Your task to perform on an android device: Open ESPN.com Image 0: 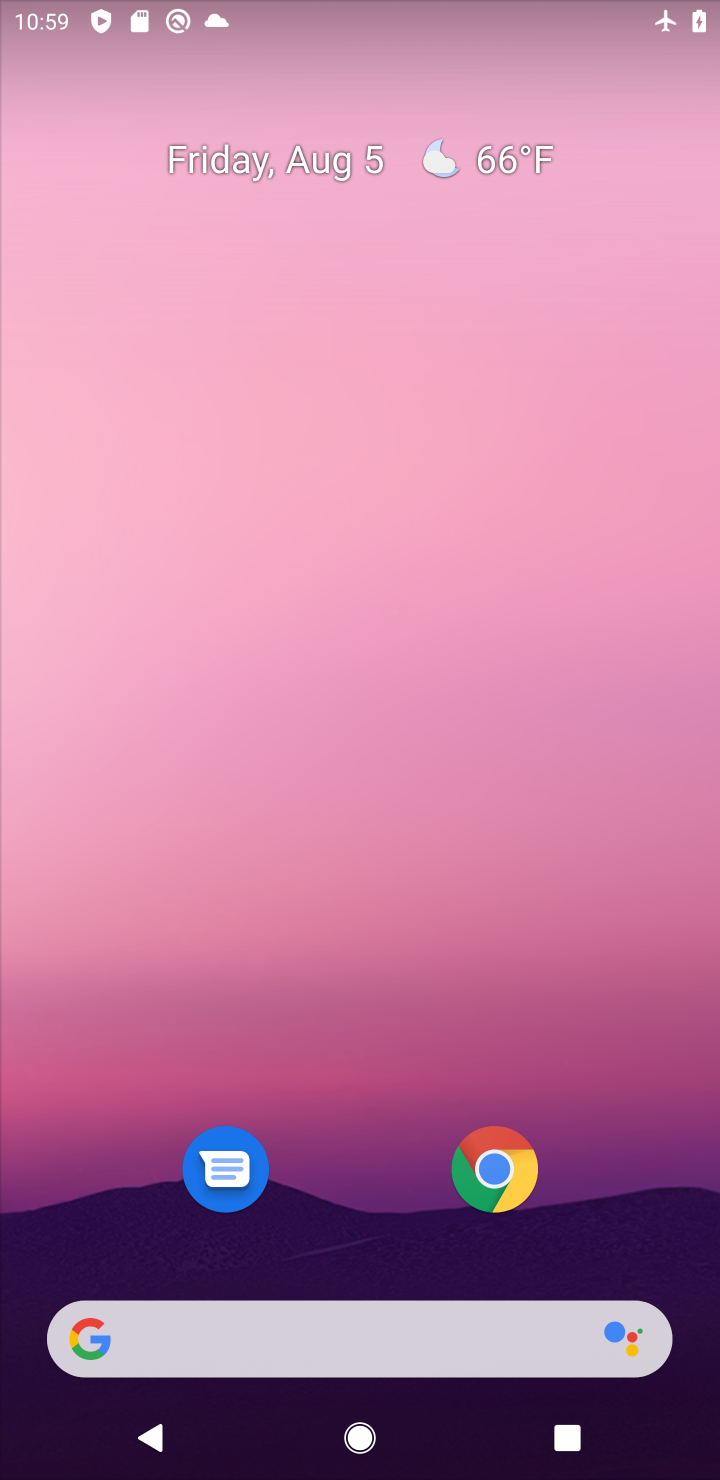
Step 0: click (488, 1177)
Your task to perform on an android device: Open ESPN.com Image 1: 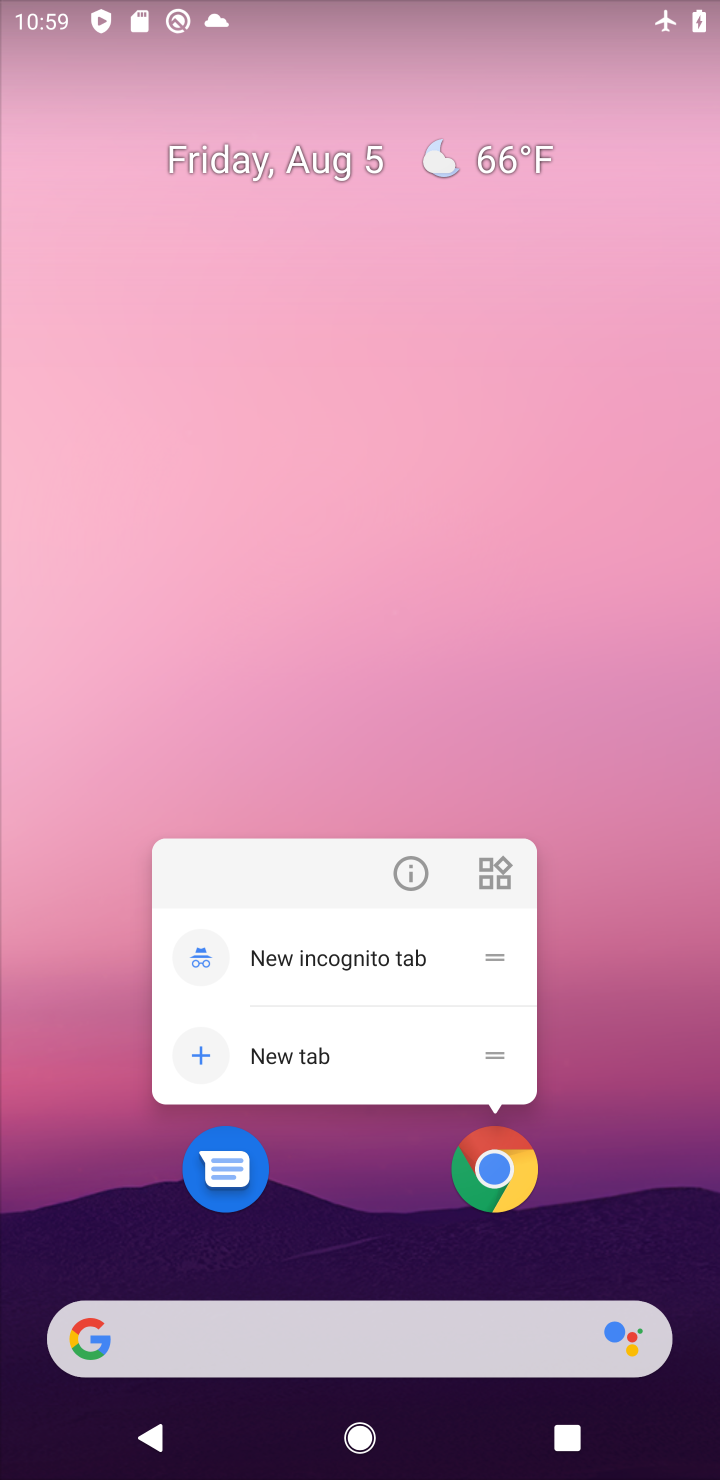
Step 1: click (499, 1172)
Your task to perform on an android device: Open ESPN.com Image 2: 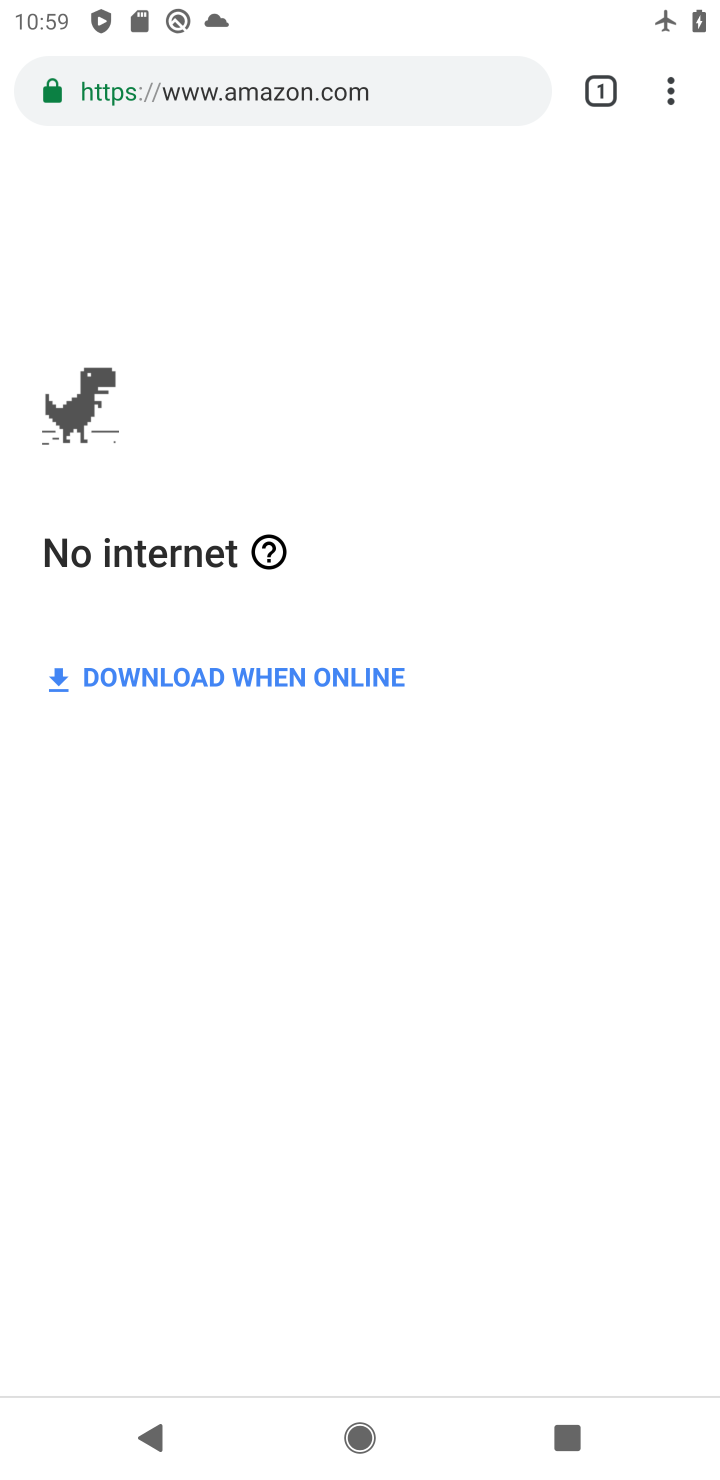
Step 2: click (431, 82)
Your task to perform on an android device: Open ESPN.com Image 3: 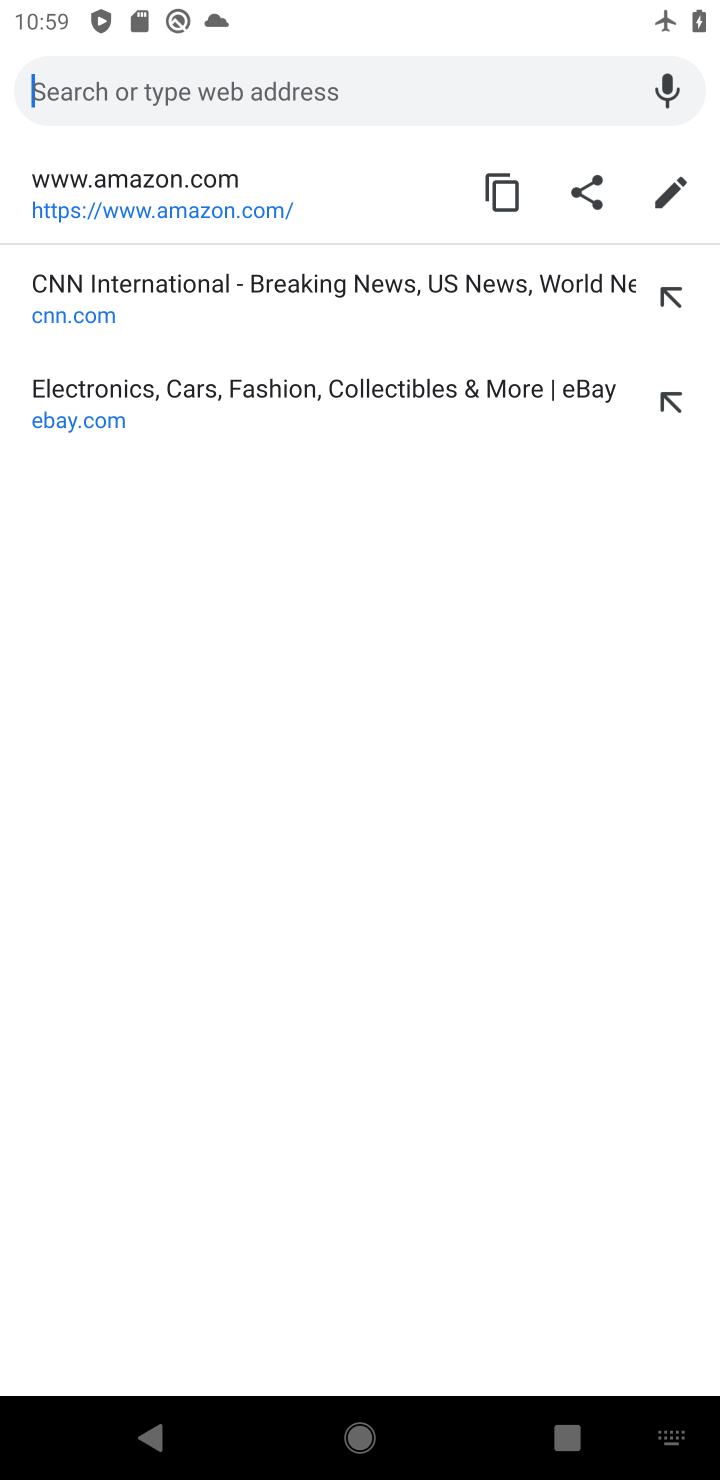
Step 3: type "ESPN.com"
Your task to perform on an android device: Open ESPN.com Image 4: 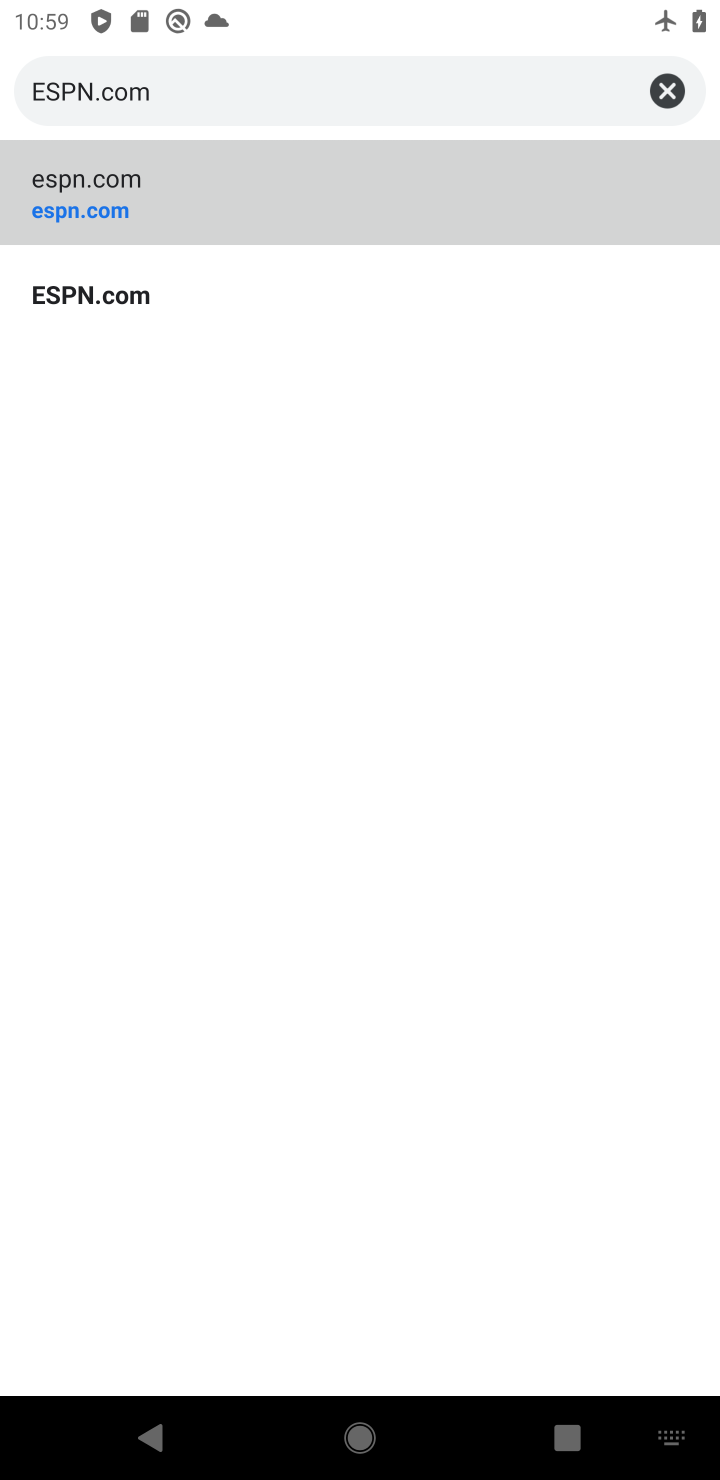
Step 4: click (90, 187)
Your task to perform on an android device: Open ESPN.com Image 5: 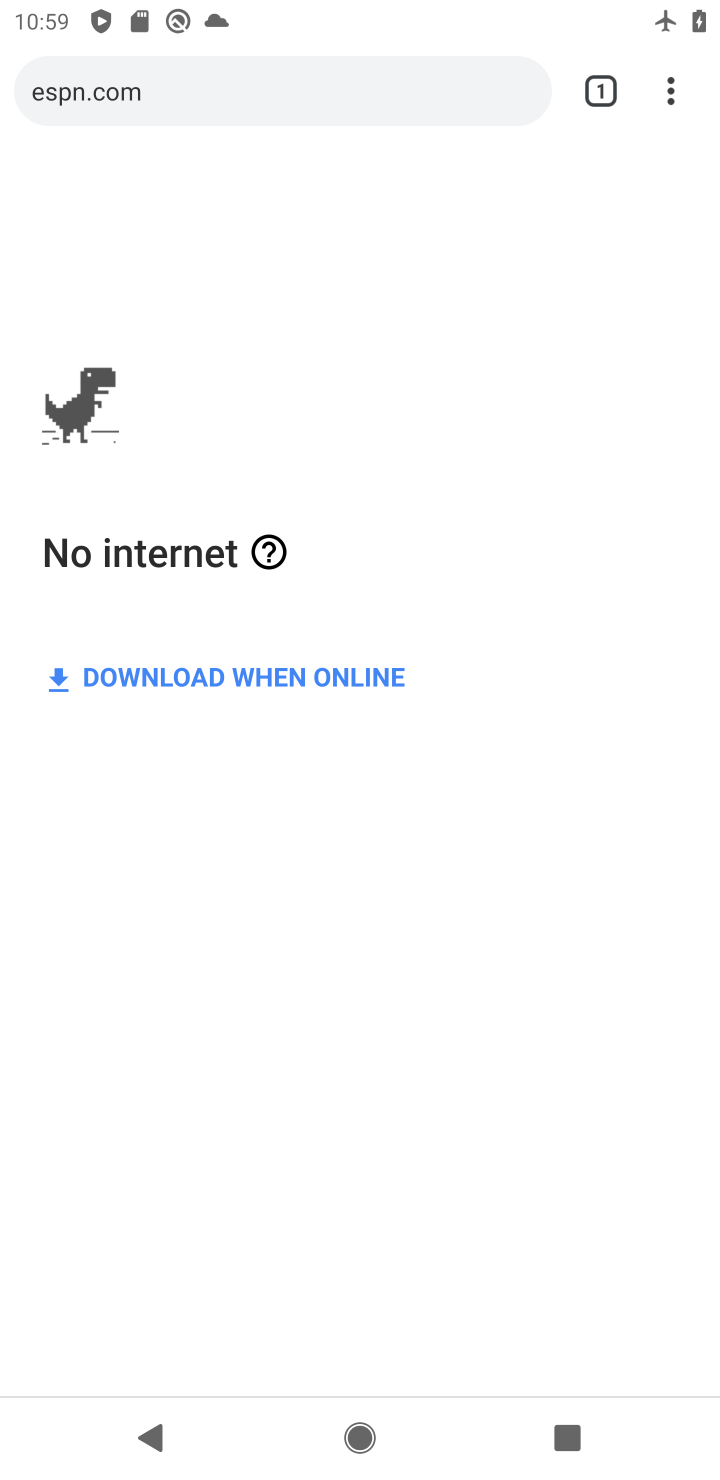
Step 5: task complete